Your task to perform on an android device: open app "Life360: Find Family & Friends" Image 0: 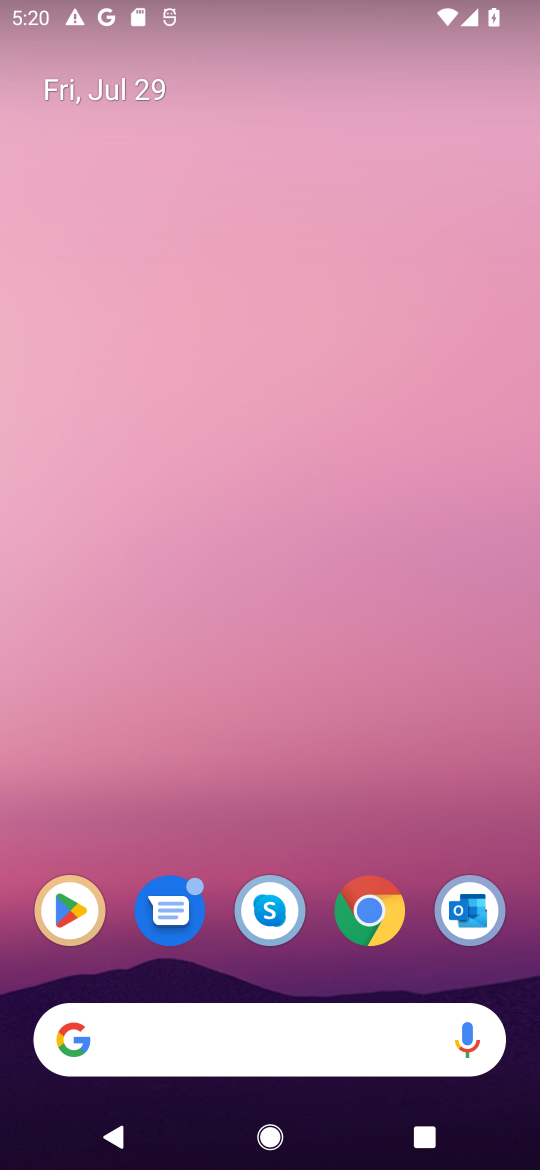
Step 0: drag from (199, 1002) to (241, 216)
Your task to perform on an android device: open app "Life360: Find Family & Friends" Image 1: 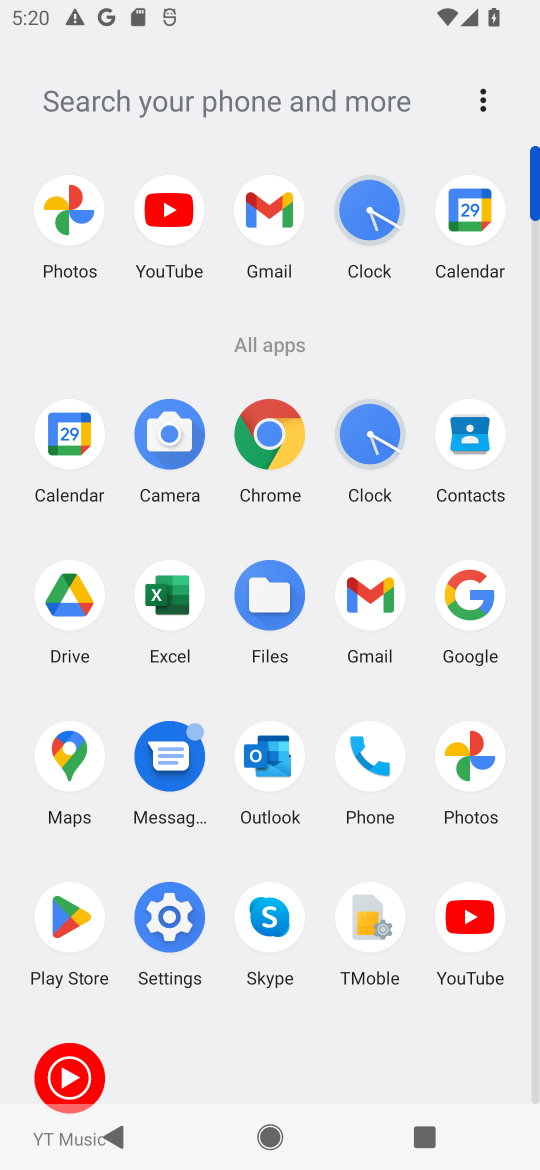
Step 1: click (59, 925)
Your task to perform on an android device: open app "Life360: Find Family & Friends" Image 2: 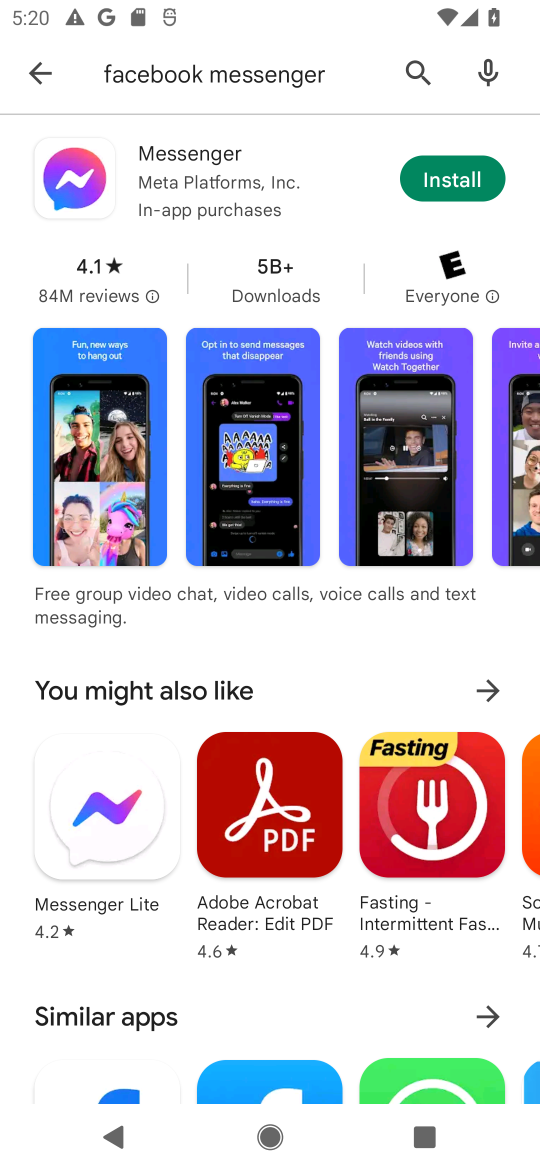
Step 2: click (30, 64)
Your task to perform on an android device: open app "Life360: Find Family & Friends" Image 3: 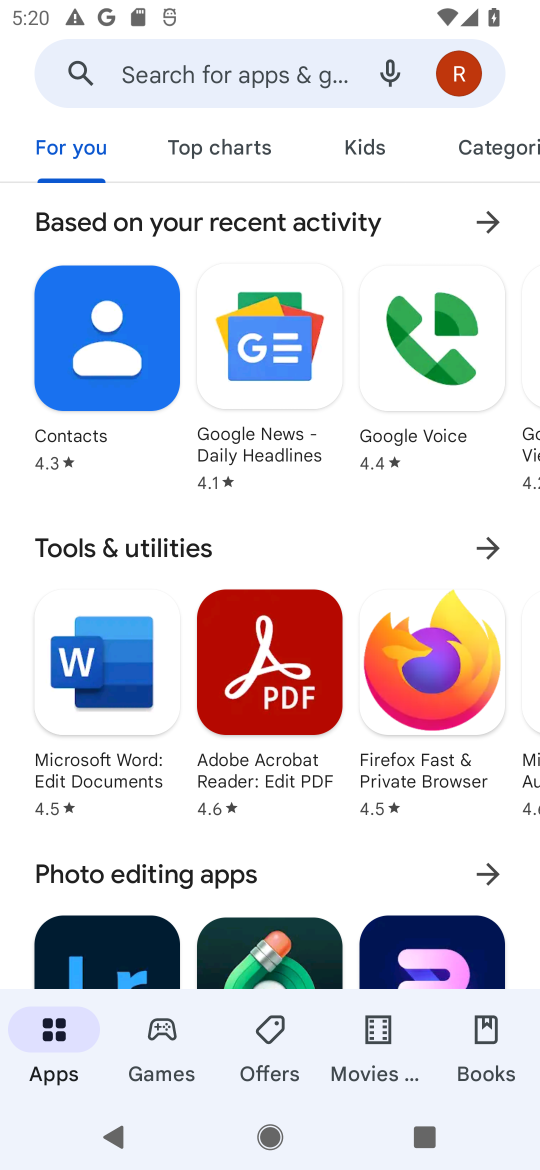
Step 3: click (158, 73)
Your task to perform on an android device: open app "Life360: Find Family & Friends" Image 4: 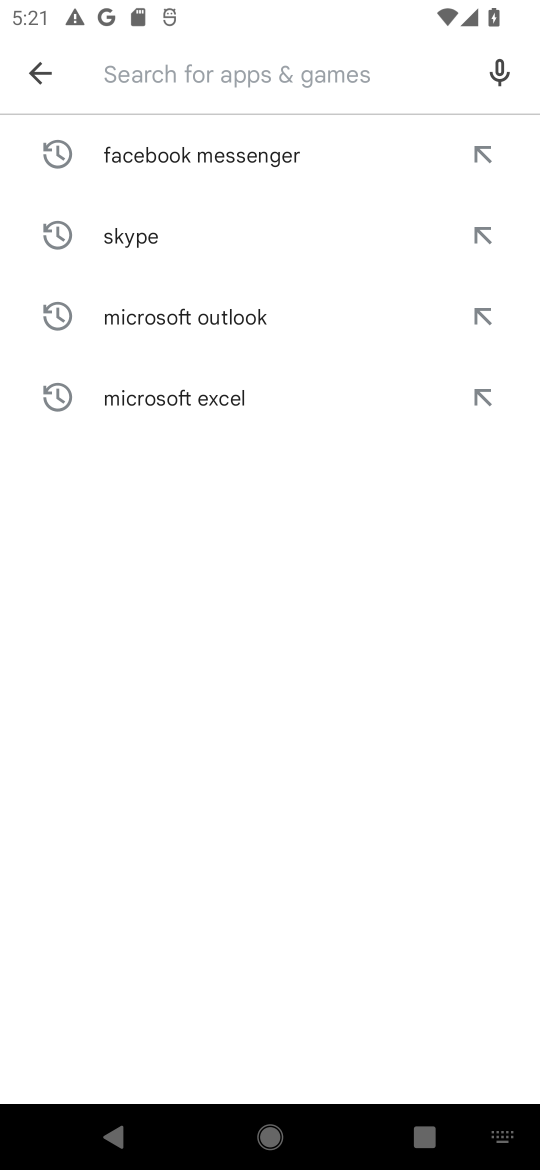
Step 4: type "Life360: Find Family & Friends"
Your task to perform on an android device: open app "Life360: Find Family & Friends" Image 5: 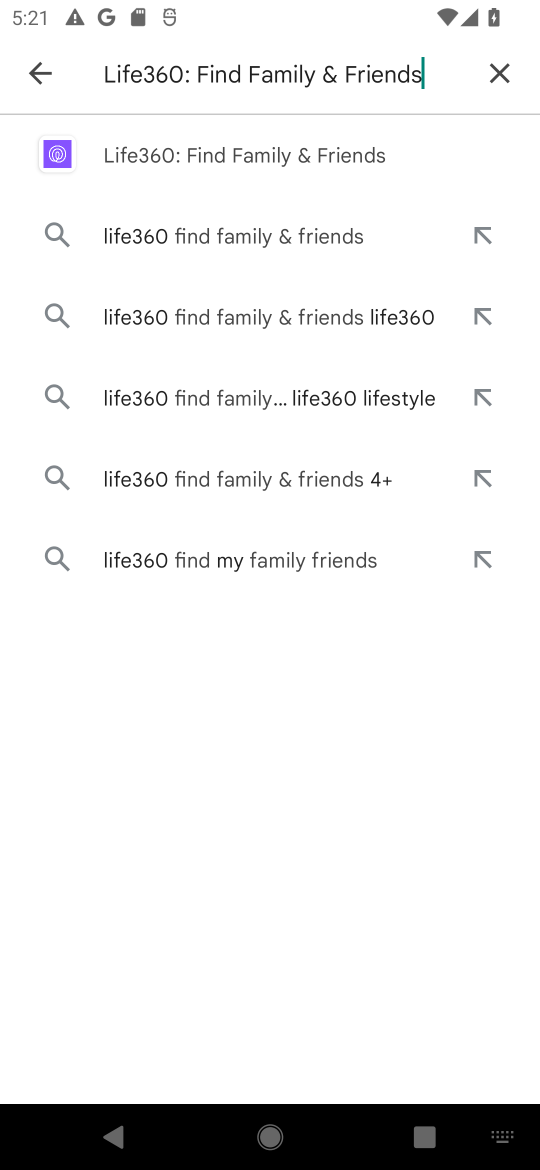
Step 5: click (321, 178)
Your task to perform on an android device: open app "Life360: Find Family & Friends" Image 6: 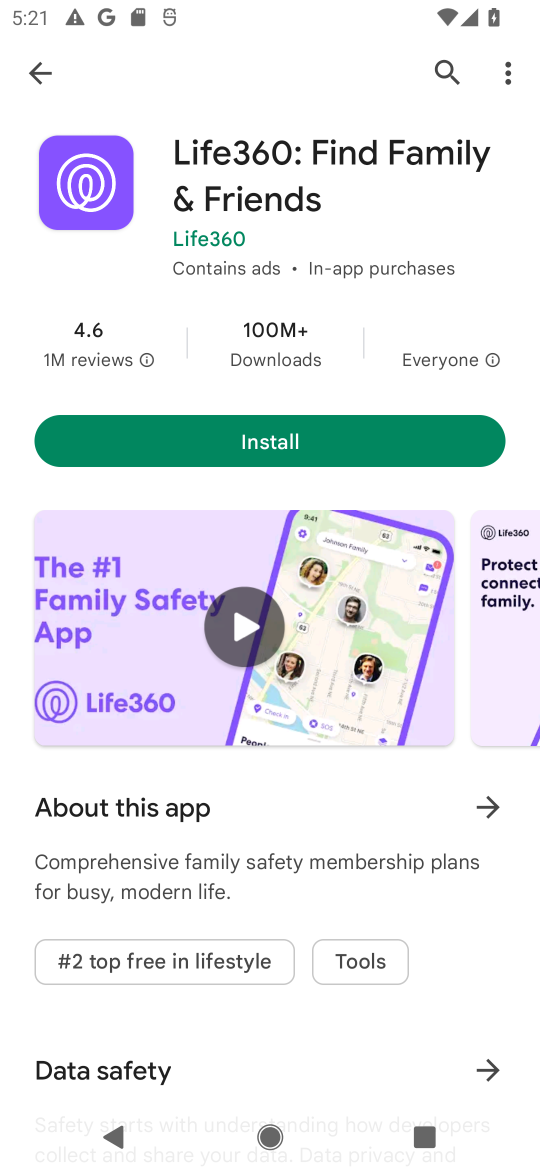
Step 6: click (304, 446)
Your task to perform on an android device: open app "Life360: Find Family & Friends" Image 7: 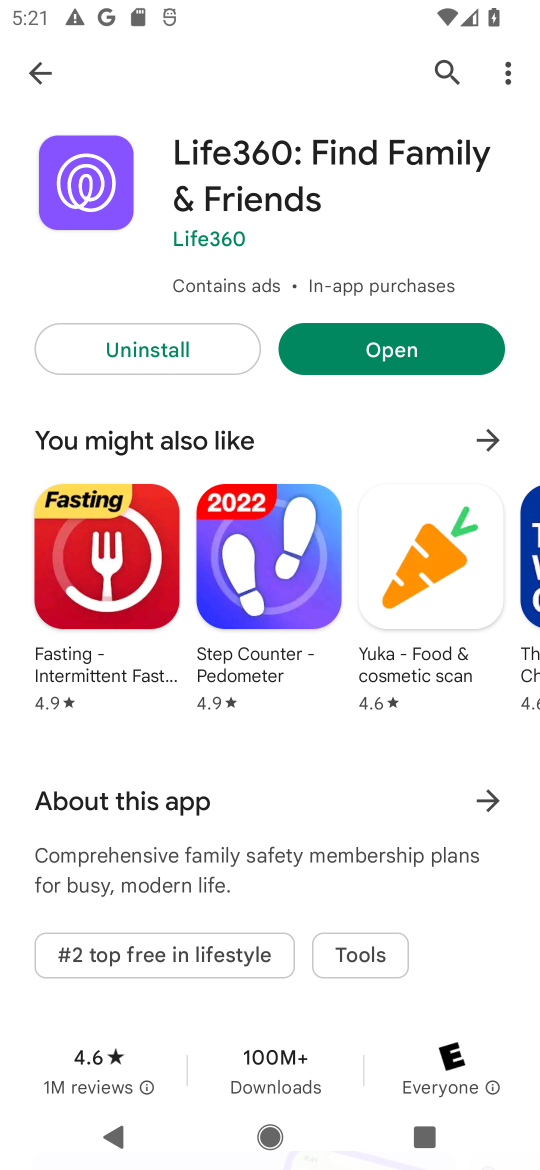
Step 7: click (348, 353)
Your task to perform on an android device: open app "Life360: Find Family & Friends" Image 8: 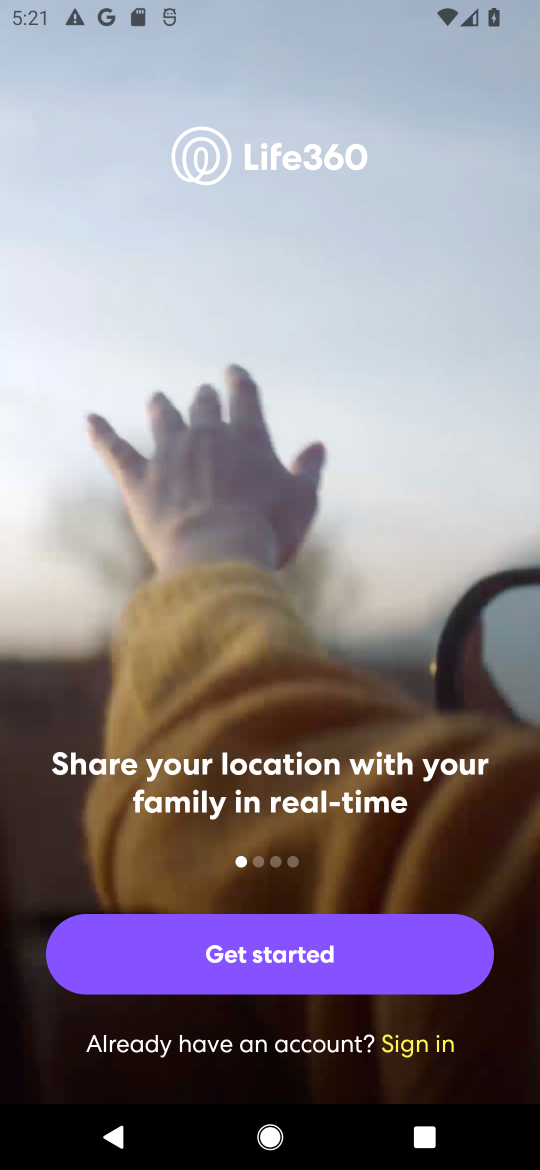
Step 8: task complete